Your task to perform on an android device: Search for the new Apple Watch on Best Buy Image 0: 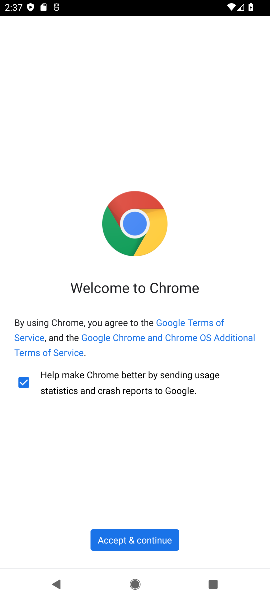
Step 0: click (164, 535)
Your task to perform on an android device: Search for the new Apple Watch on Best Buy Image 1: 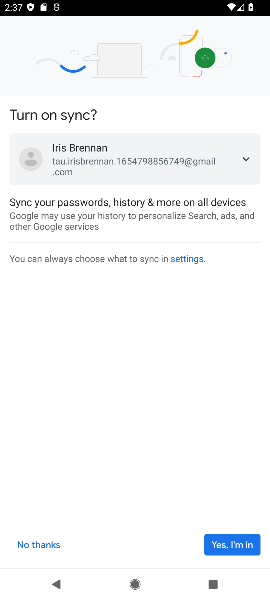
Step 1: click (230, 541)
Your task to perform on an android device: Search for the new Apple Watch on Best Buy Image 2: 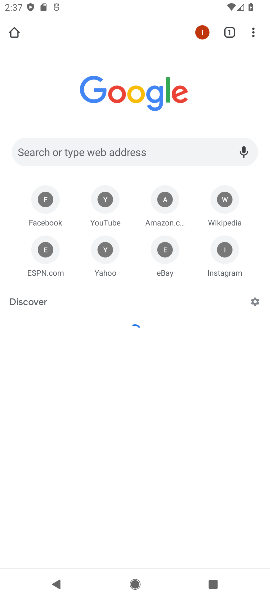
Step 2: drag from (234, 543) to (250, 423)
Your task to perform on an android device: Search for the new Apple Watch on Best Buy Image 3: 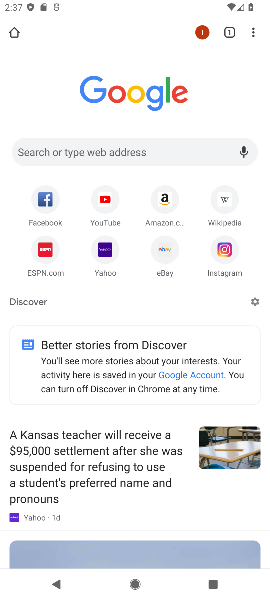
Step 3: click (67, 154)
Your task to perform on an android device: Search for the new Apple Watch on Best Buy Image 4: 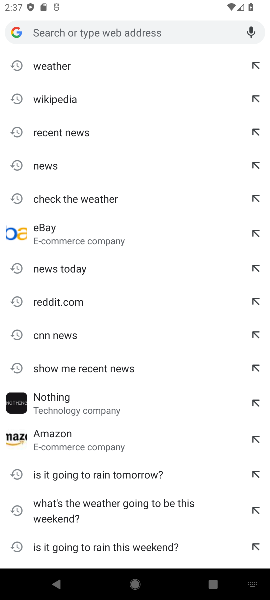
Step 4: type "best buy"
Your task to perform on an android device: Search for the new Apple Watch on Best Buy Image 5: 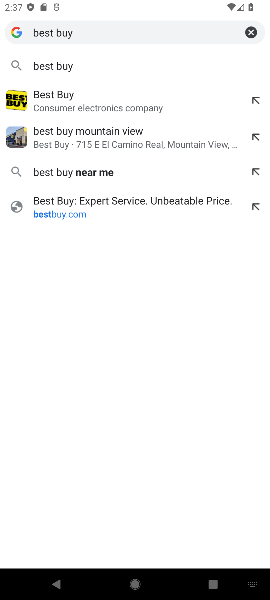
Step 5: click (103, 101)
Your task to perform on an android device: Search for the new Apple Watch on Best Buy Image 6: 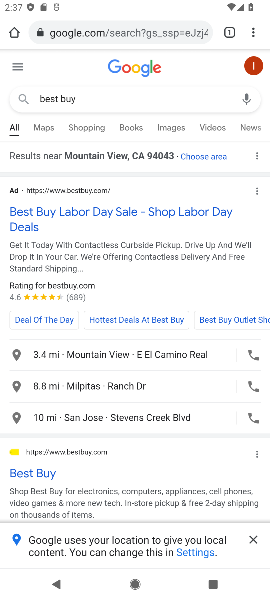
Step 6: click (49, 470)
Your task to perform on an android device: Search for the new Apple Watch on Best Buy Image 7: 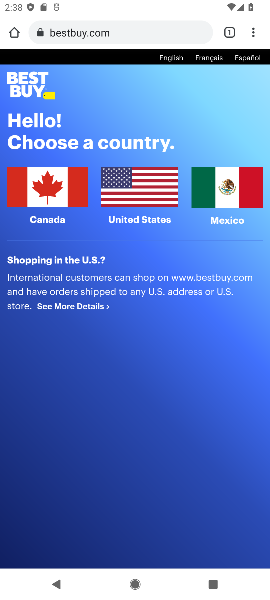
Step 7: click (142, 197)
Your task to perform on an android device: Search for the new Apple Watch on Best Buy Image 8: 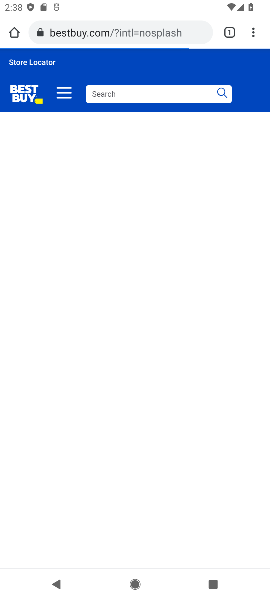
Step 8: click (142, 197)
Your task to perform on an android device: Search for the new Apple Watch on Best Buy Image 9: 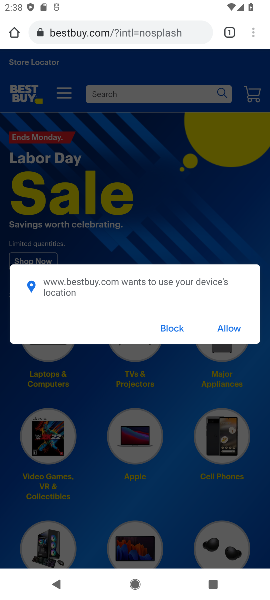
Step 9: click (222, 325)
Your task to perform on an android device: Search for the new Apple Watch on Best Buy Image 10: 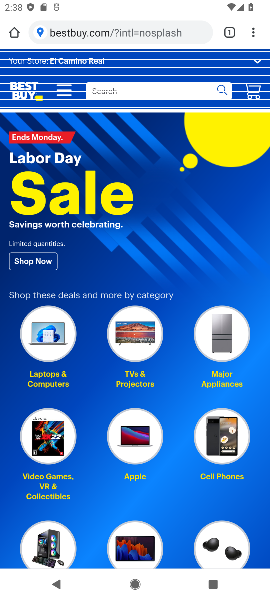
Step 10: click (146, 91)
Your task to perform on an android device: Search for the new Apple Watch on Best Buy Image 11: 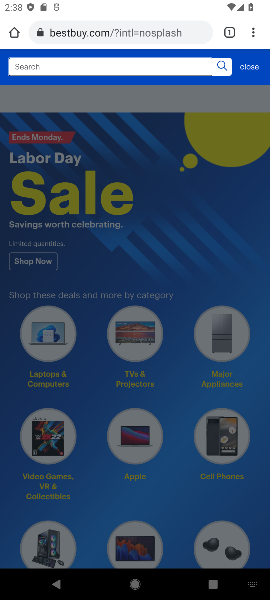
Step 11: type "new apple watch"
Your task to perform on an android device: Search for the new Apple Watch on Best Buy Image 12: 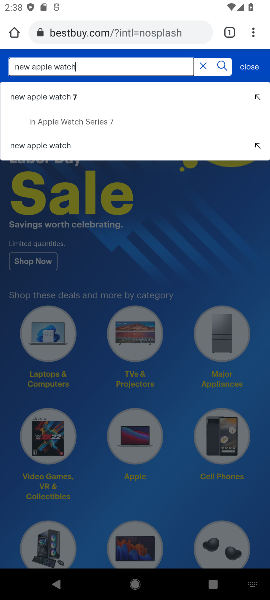
Step 12: click (45, 147)
Your task to perform on an android device: Search for the new Apple Watch on Best Buy Image 13: 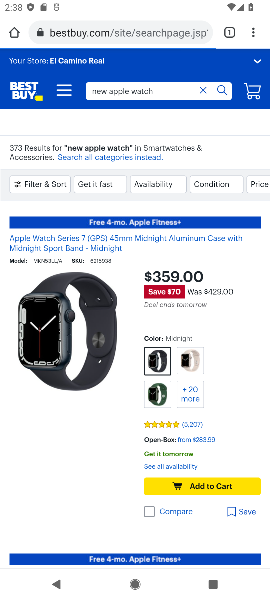
Step 13: task complete